Your task to perform on an android device: Search for pizza restaurants on Maps Image 0: 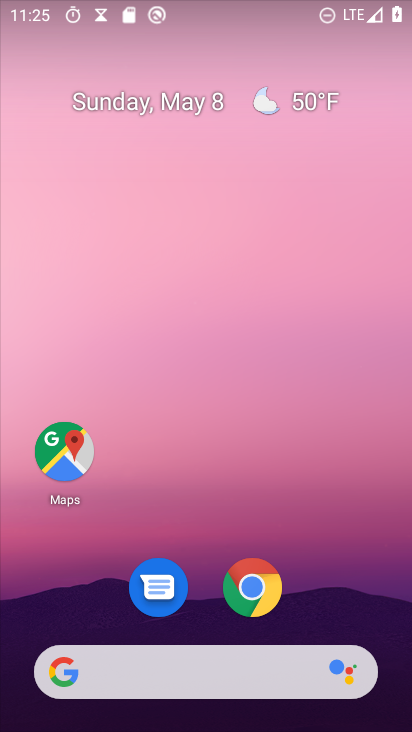
Step 0: click (75, 461)
Your task to perform on an android device: Search for pizza restaurants on Maps Image 1: 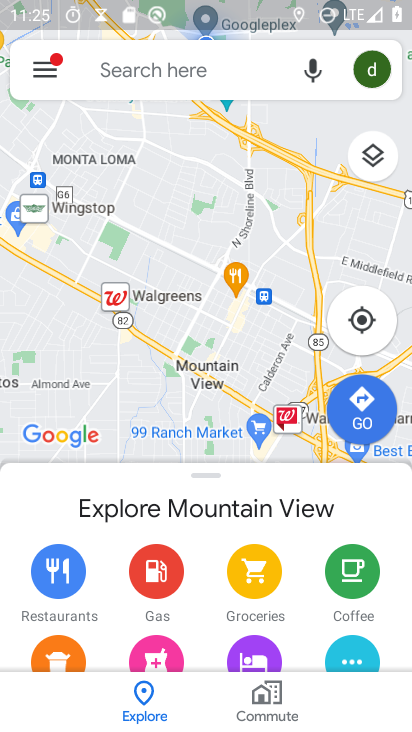
Step 1: click (189, 75)
Your task to perform on an android device: Search for pizza restaurants on Maps Image 2: 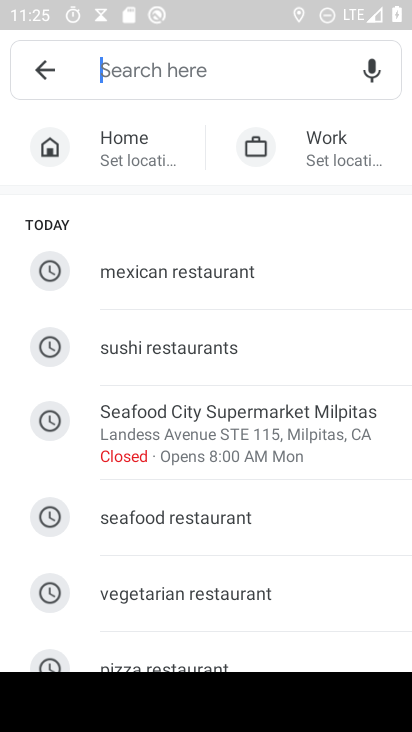
Step 2: click (159, 663)
Your task to perform on an android device: Search for pizza restaurants on Maps Image 3: 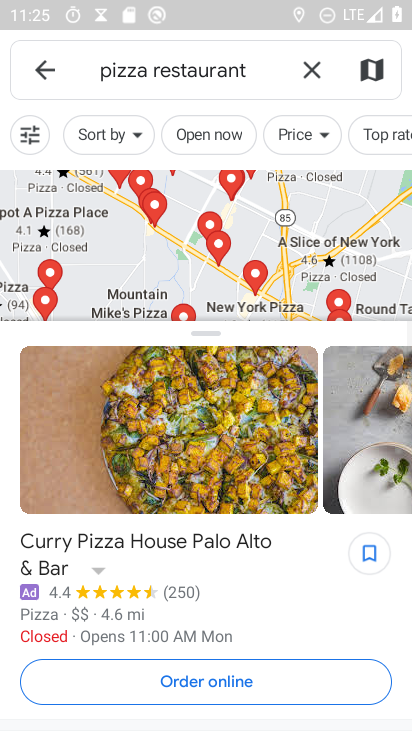
Step 3: task complete